Your task to perform on an android device: Go to location settings Image 0: 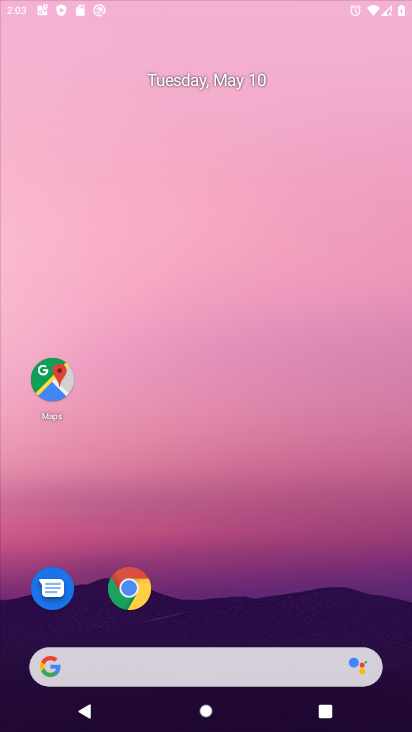
Step 0: click (272, 263)
Your task to perform on an android device: Go to location settings Image 1: 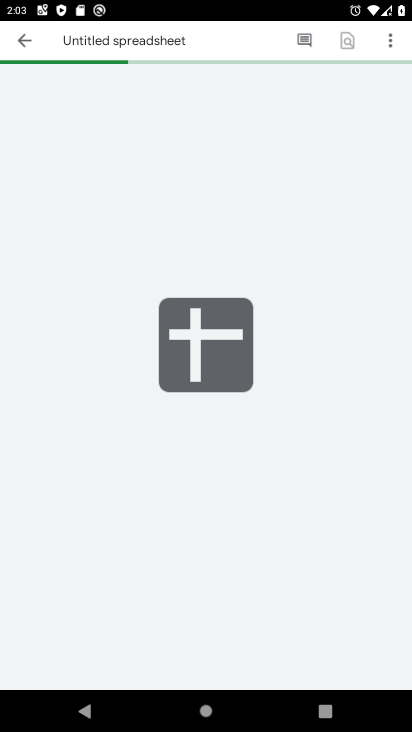
Step 1: press home button
Your task to perform on an android device: Go to location settings Image 2: 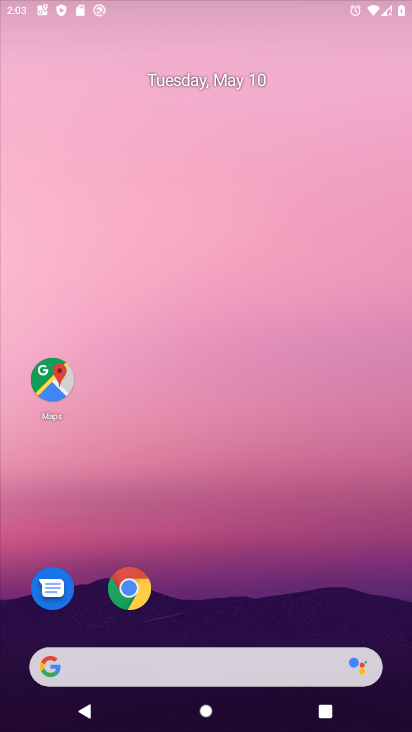
Step 2: drag from (265, 570) to (288, 208)
Your task to perform on an android device: Go to location settings Image 3: 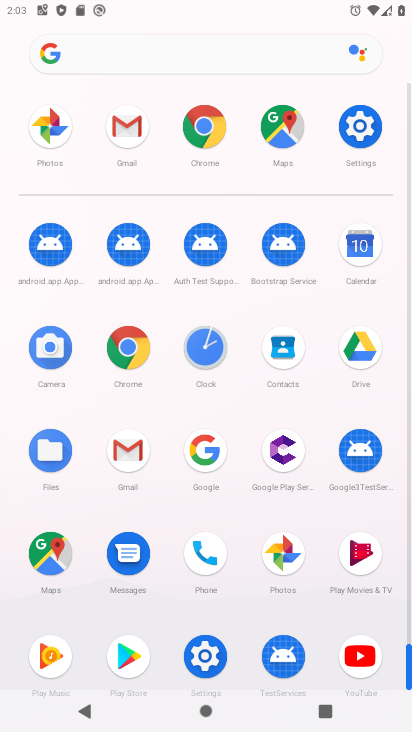
Step 3: click (133, 342)
Your task to perform on an android device: Go to location settings Image 4: 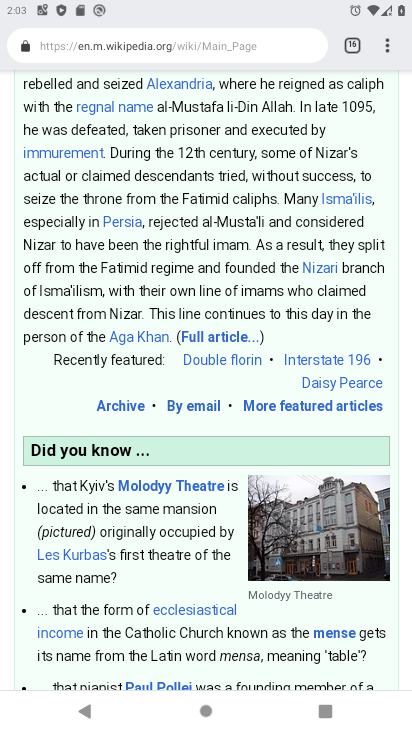
Step 4: press home button
Your task to perform on an android device: Go to location settings Image 5: 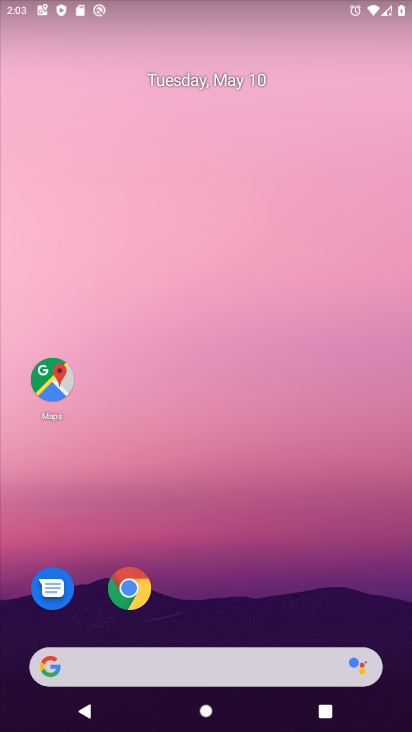
Step 5: drag from (241, 520) to (269, 199)
Your task to perform on an android device: Go to location settings Image 6: 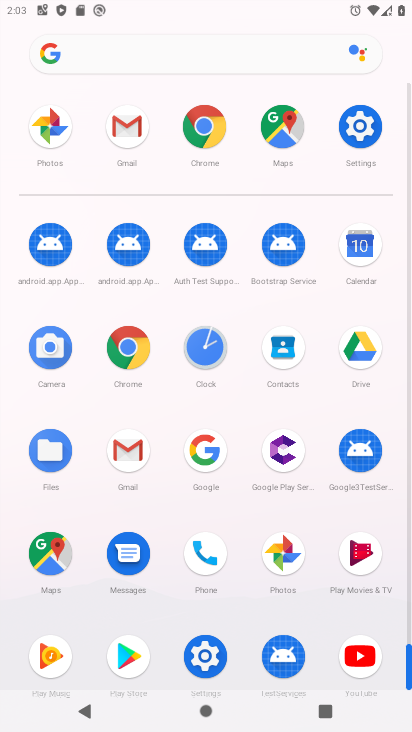
Step 6: click (352, 120)
Your task to perform on an android device: Go to location settings Image 7: 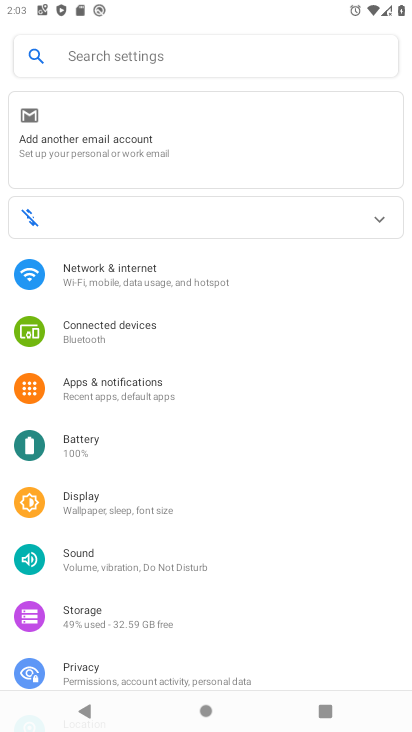
Step 7: drag from (133, 651) to (236, 303)
Your task to perform on an android device: Go to location settings Image 8: 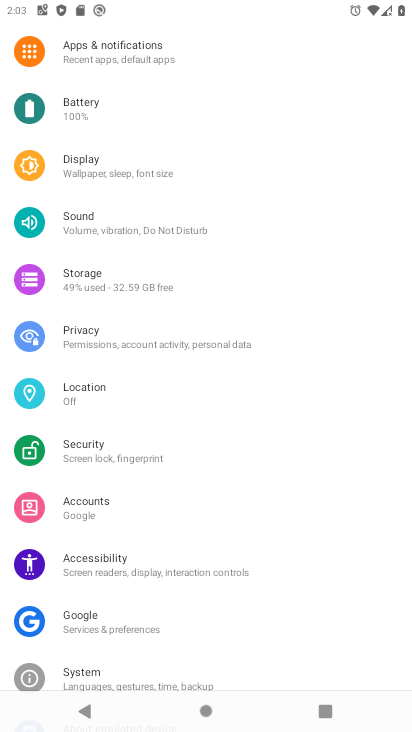
Step 8: click (111, 387)
Your task to perform on an android device: Go to location settings Image 9: 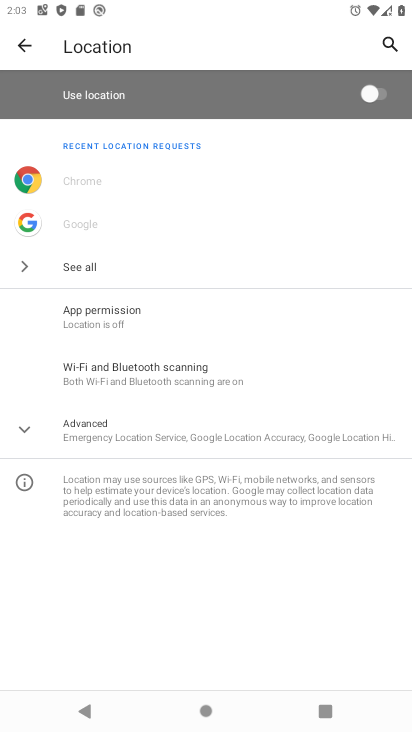
Step 9: task complete